Your task to perform on an android device: move a message to another label in the gmail app Image 0: 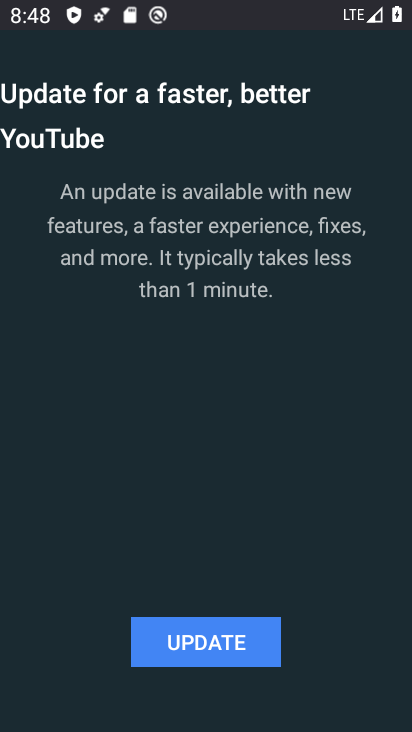
Step 0: press home button
Your task to perform on an android device: move a message to another label in the gmail app Image 1: 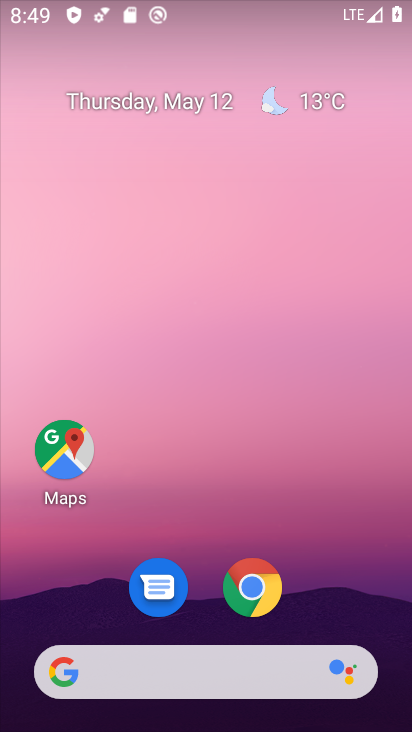
Step 1: drag from (341, 589) to (348, 47)
Your task to perform on an android device: move a message to another label in the gmail app Image 2: 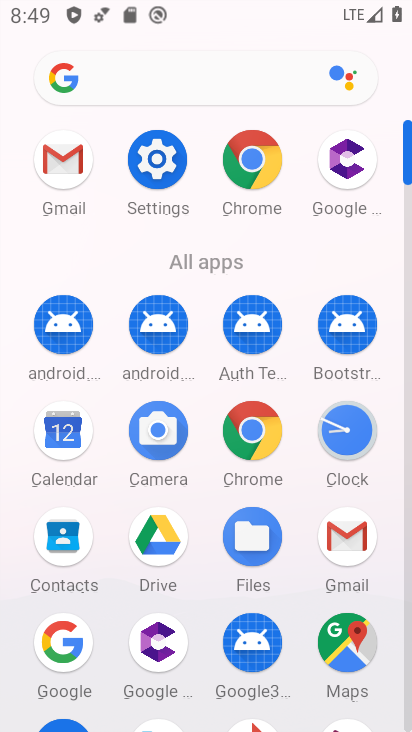
Step 2: click (51, 155)
Your task to perform on an android device: move a message to another label in the gmail app Image 3: 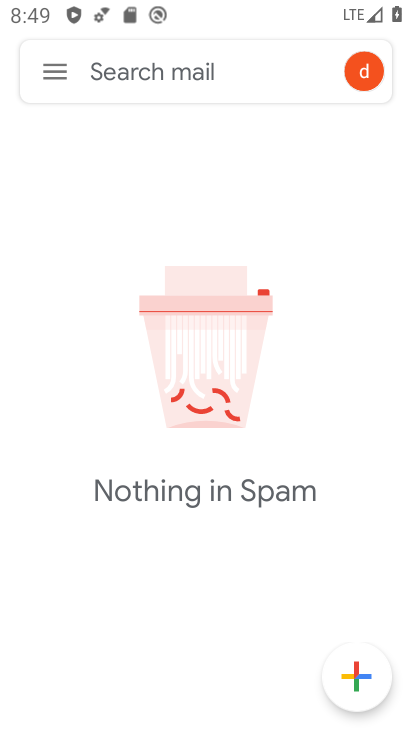
Step 3: click (50, 72)
Your task to perform on an android device: move a message to another label in the gmail app Image 4: 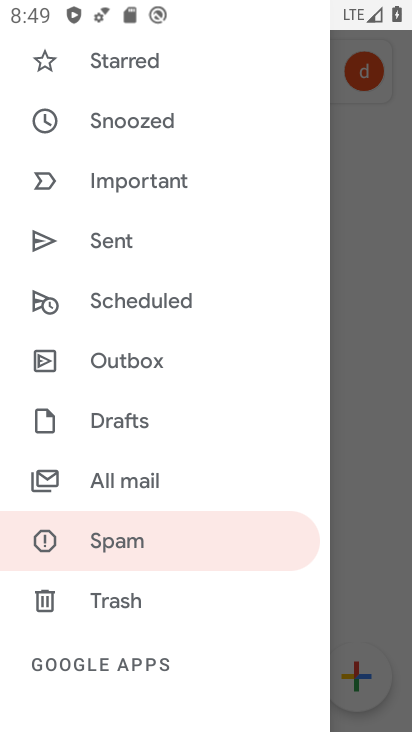
Step 4: click (131, 483)
Your task to perform on an android device: move a message to another label in the gmail app Image 5: 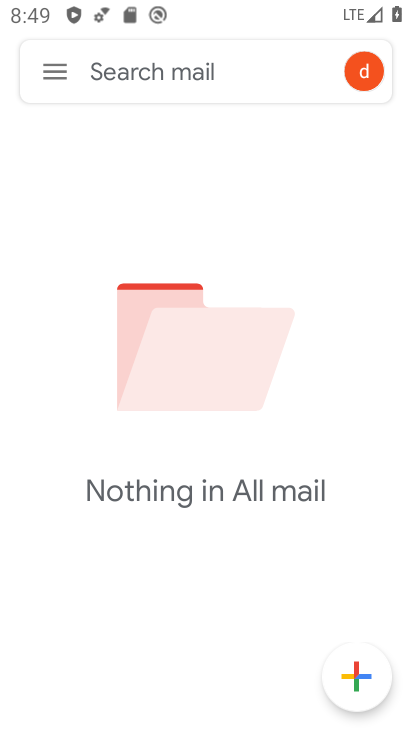
Step 5: task complete